Your task to perform on an android device: Look up "custom art" on Etsy Image 0: 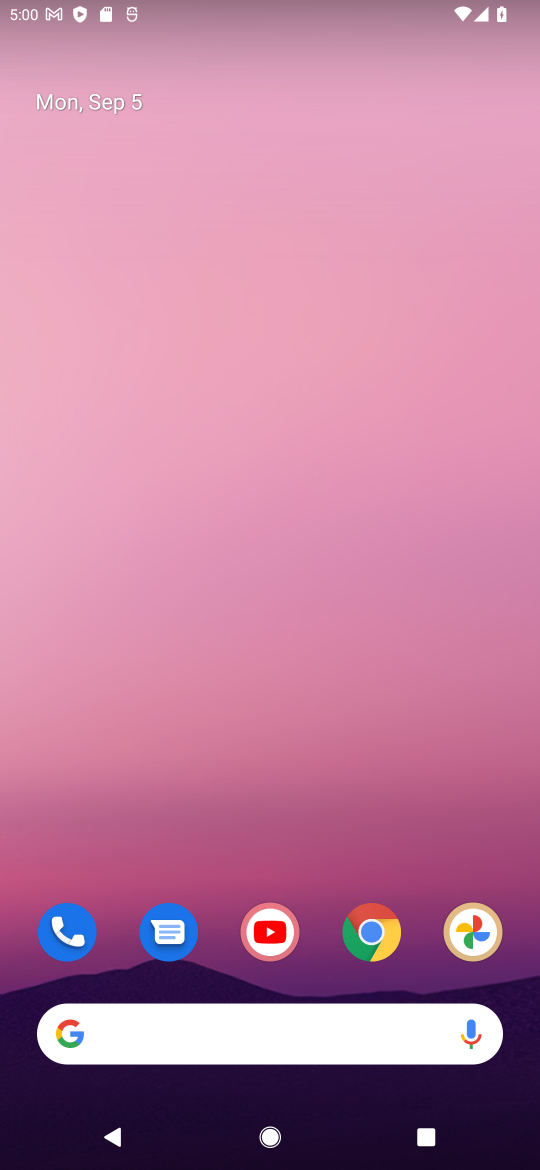
Step 0: drag from (328, 984) to (312, 32)
Your task to perform on an android device: Look up "custom art" on Etsy Image 1: 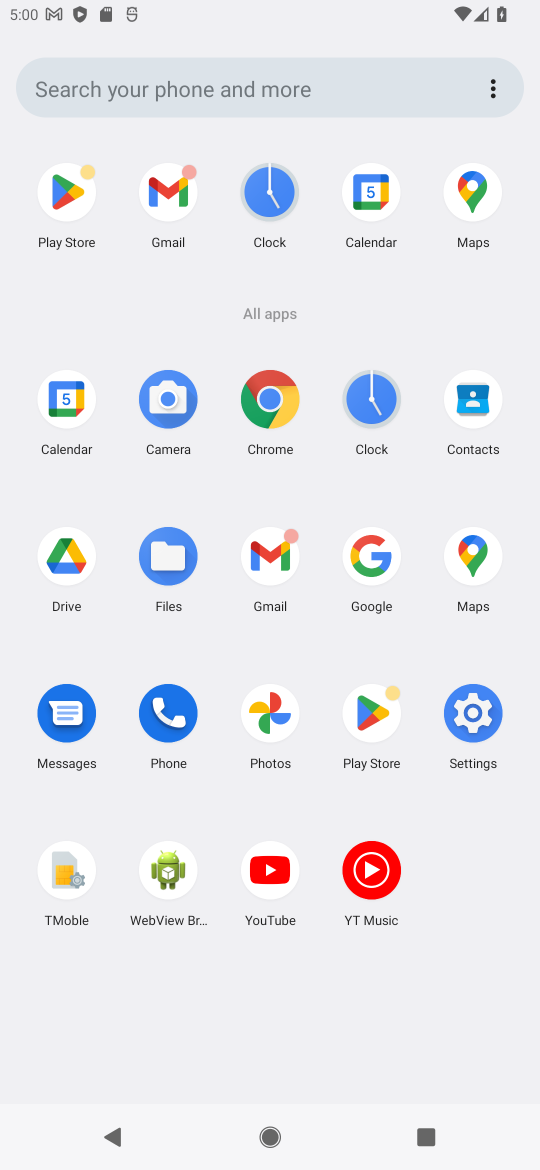
Step 1: click (370, 552)
Your task to perform on an android device: Look up "custom art" on Etsy Image 2: 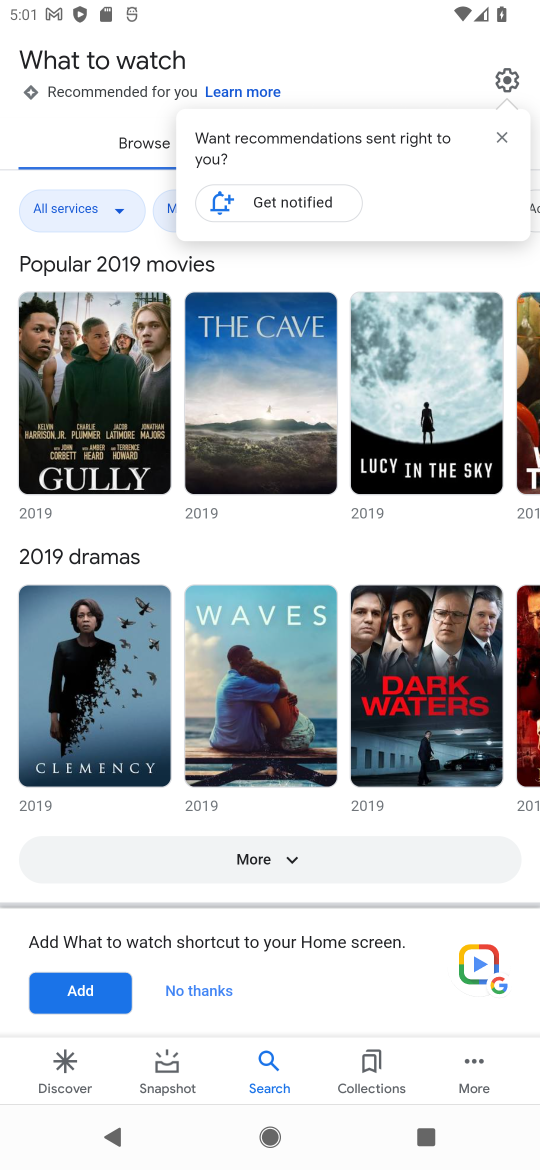
Step 2: click (265, 1047)
Your task to perform on an android device: Look up "custom art" on Etsy Image 3: 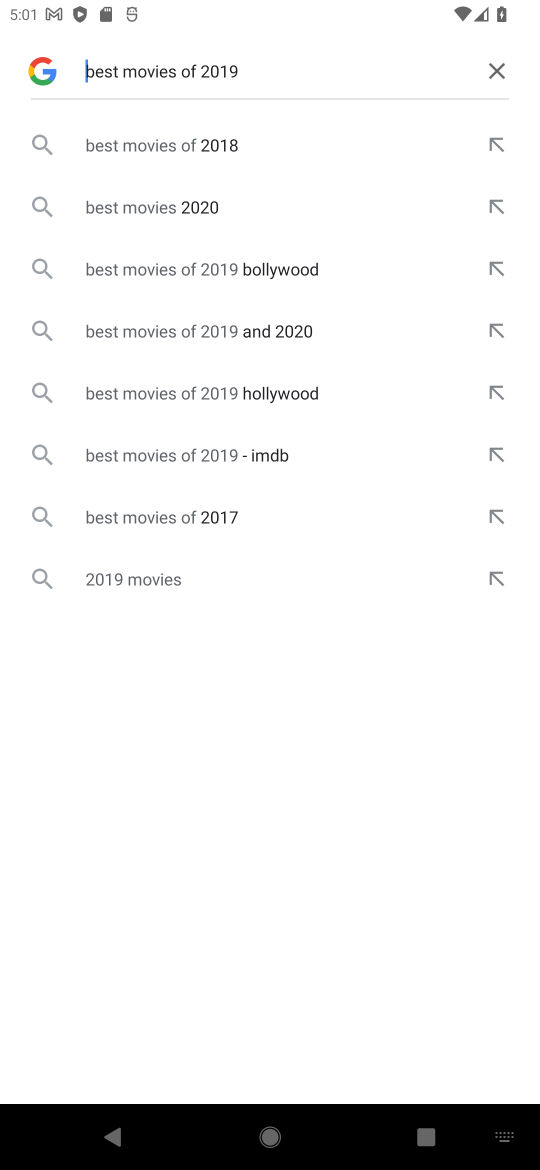
Step 3: click (490, 59)
Your task to perform on an android device: Look up "custom art" on Etsy Image 4: 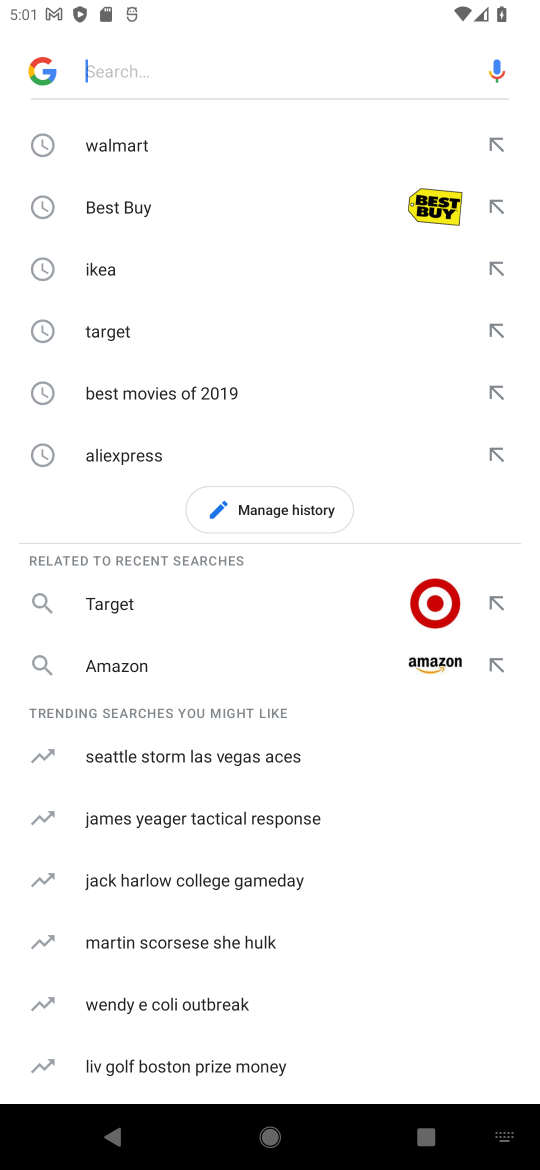
Step 4: type "Etsy"
Your task to perform on an android device: Look up "custom art" on Etsy Image 5: 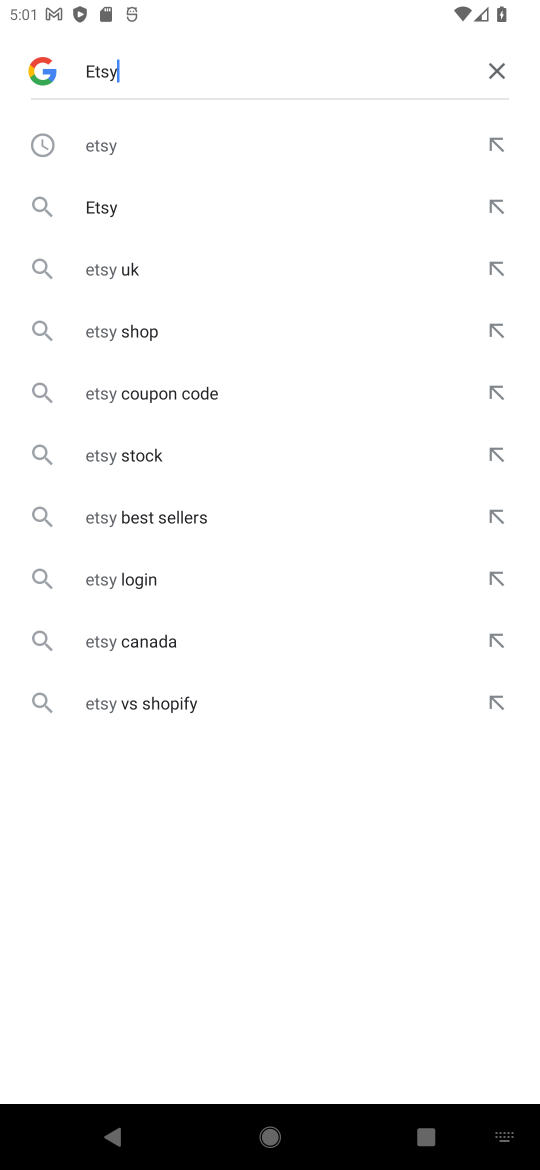
Step 5: click (105, 204)
Your task to perform on an android device: Look up "custom art" on Etsy Image 6: 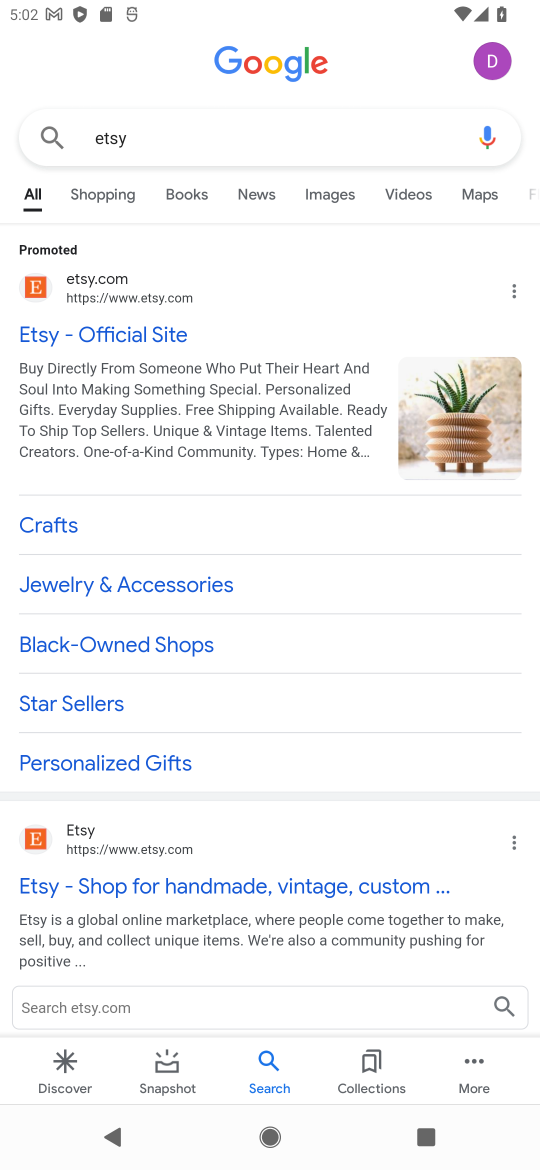
Step 6: click (157, 334)
Your task to perform on an android device: Look up "custom art" on Etsy Image 7: 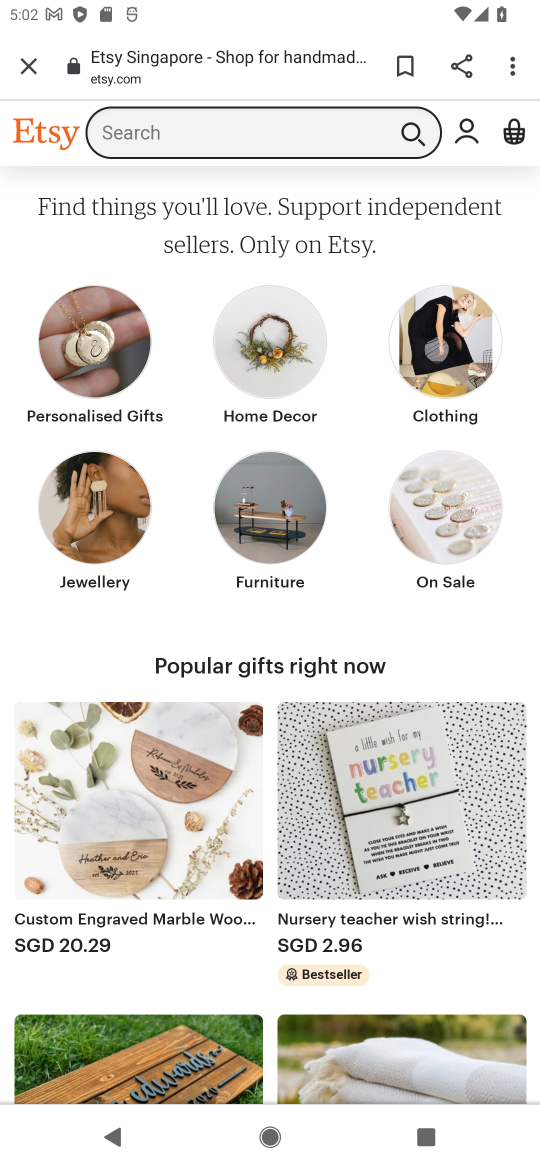
Step 7: click (195, 126)
Your task to perform on an android device: Look up "custom art" on Etsy Image 8: 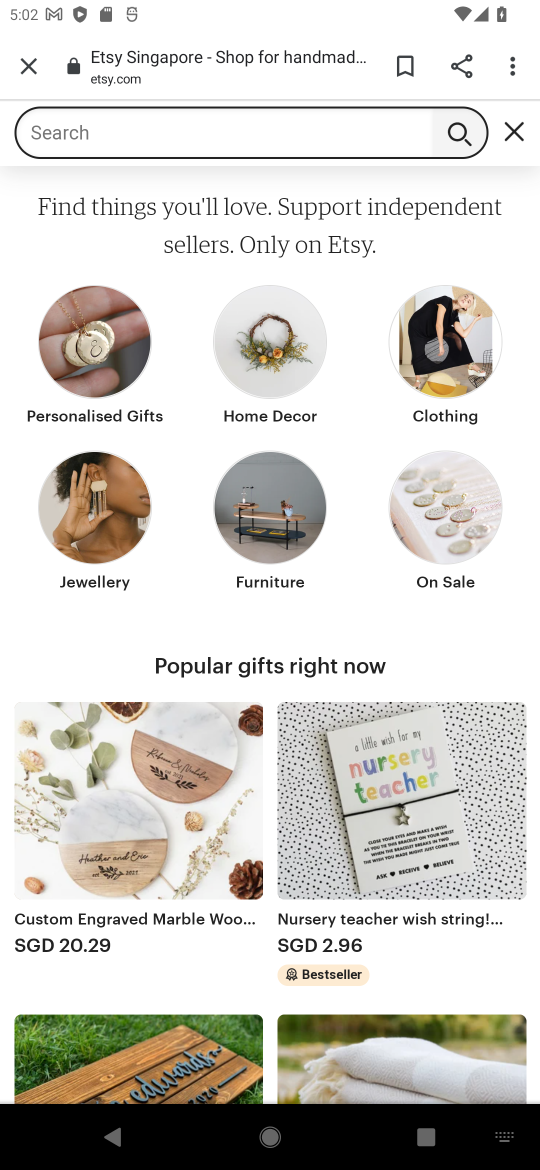
Step 8: click (268, 135)
Your task to perform on an android device: Look up "custom art" on Etsy Image 9: 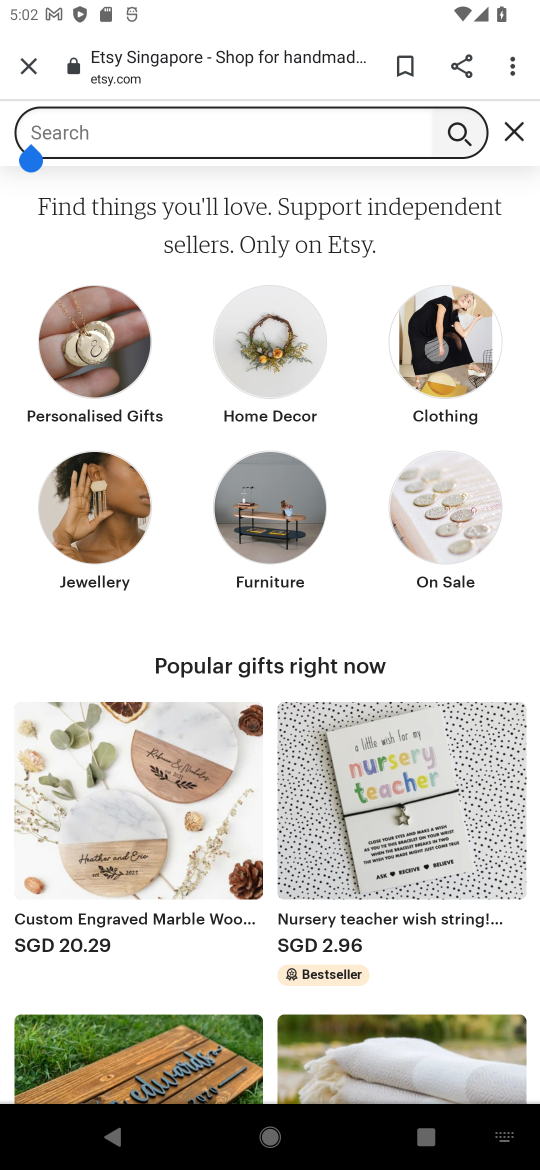
Step 9: type "custom art"
Your task to perform on an android device: Look up "custom art" on Etsy Image 10: 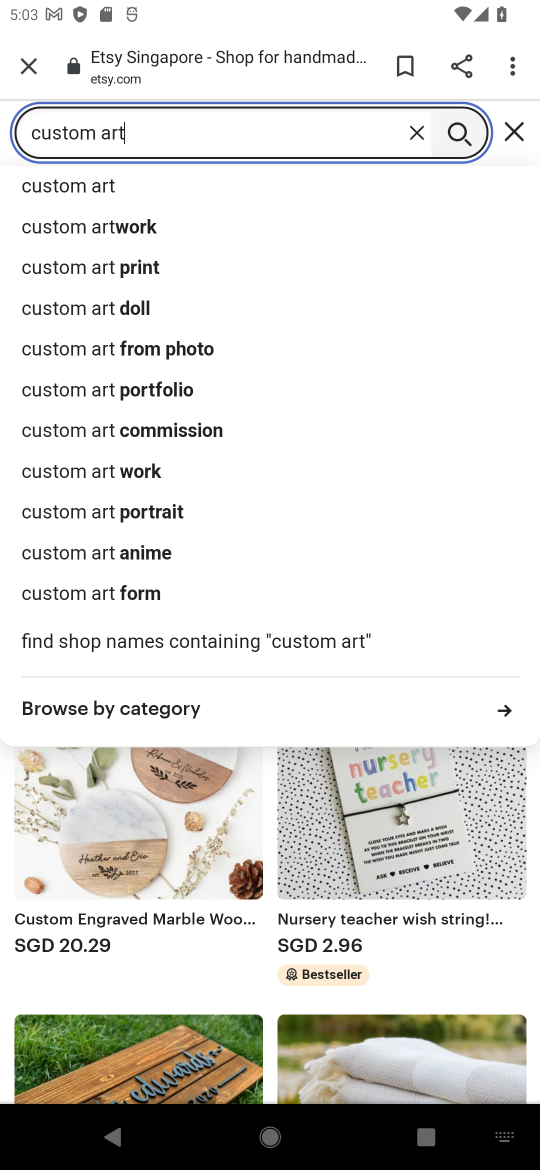
Step 10: click (47, 180)
Your task to perform on an android device: Look up "custom art" on Etsy Image 11: 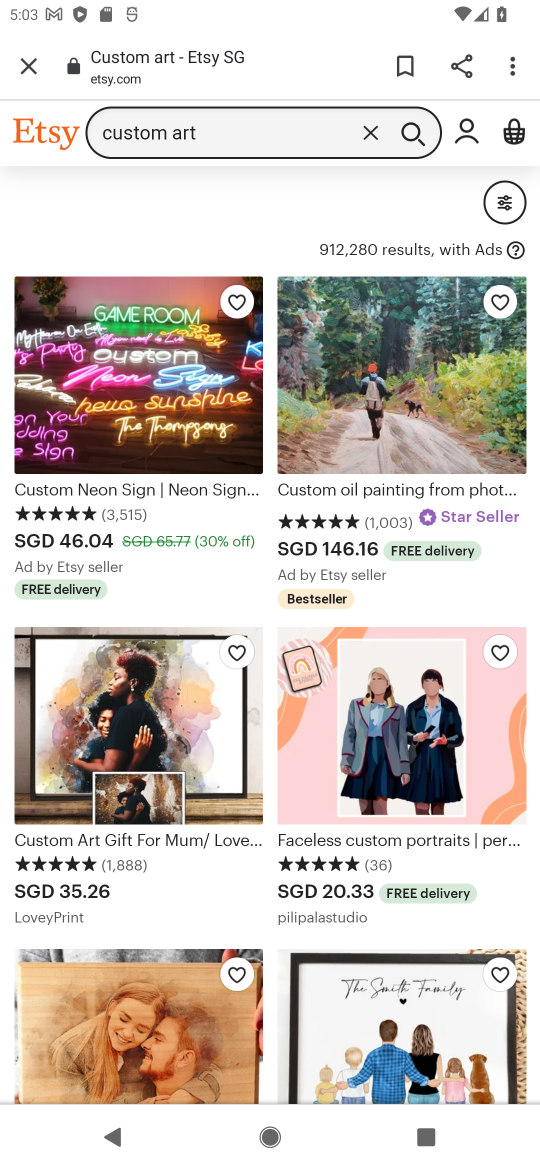
Step 11: task complete